Your task to perform on an android device: Open Wikipedia Image 0: 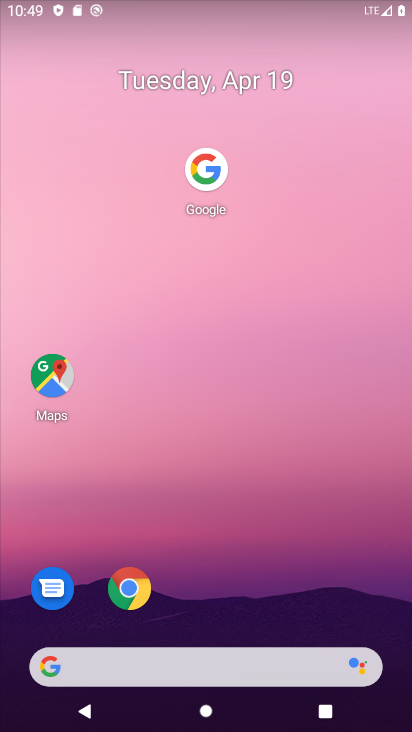
Step 0: click (126, 594)
Your task to perform on an android device: Open Wikipedia Image 1: 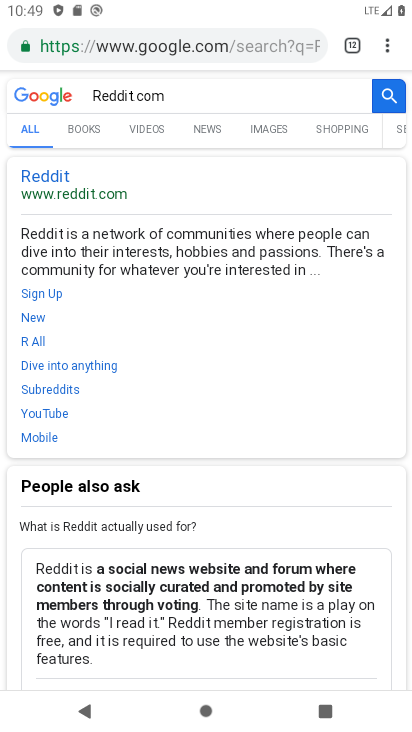
Step 1: click (386, 42)
Your task to perform on an android device: Open Wikipedia Image 2: 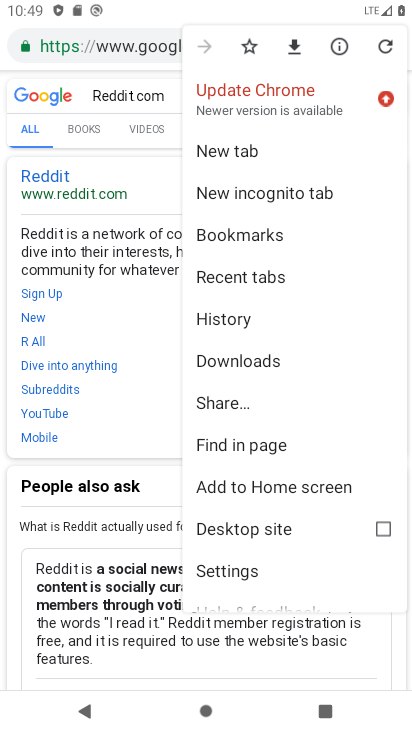
Step 2: click (241, 149)
Your task to perform on an android device: Open Wikipedia Image 3: 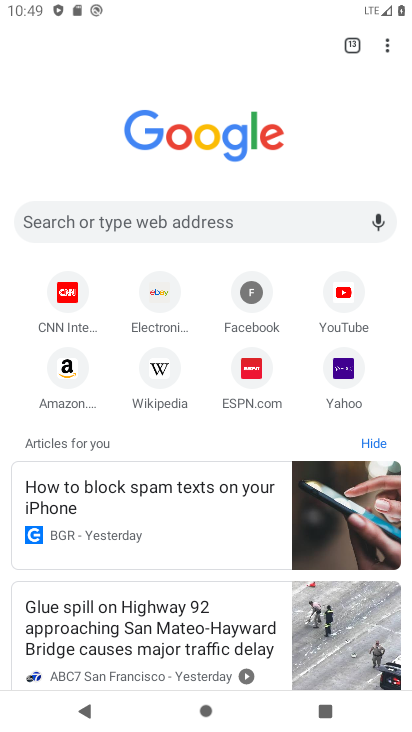
Step 3: click (164, 363)
Your task to perform on an android device: Open Wikipedia Image 4: 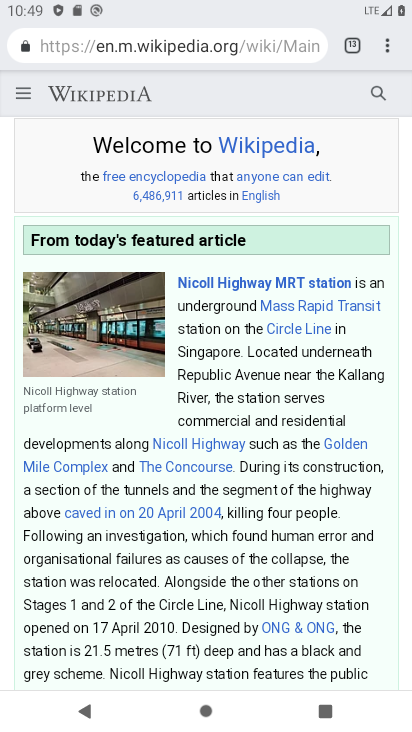
Step 4: task complete